Your task to perform on an android device: Open display settings Image 0: 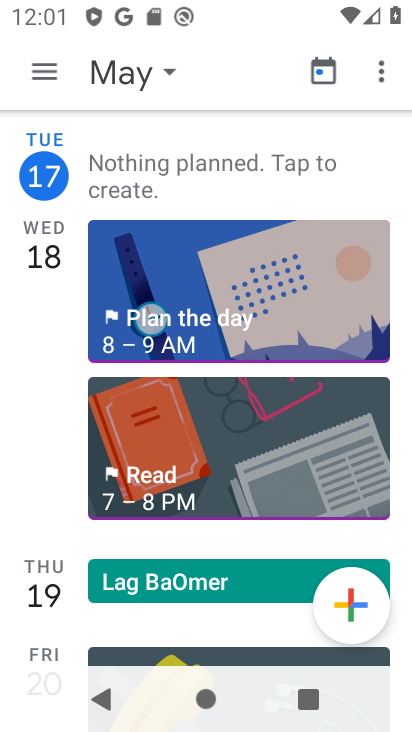
Step 0: press home button
Your task to perform on an android device: Open display settings Image 1: 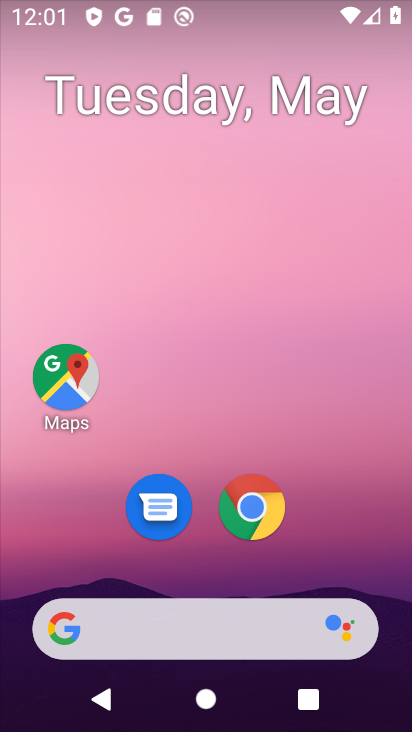
Step 1: drag from (365, 545) to (368, 104)
Your task to perform on an android device: Open display settings Image 2: 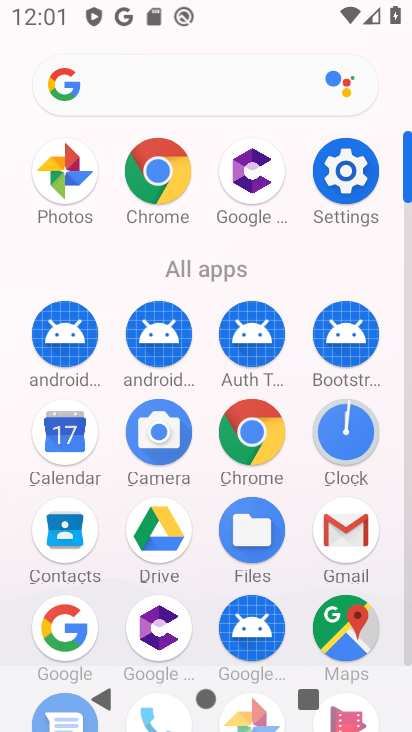
Step 2: click (340, 182)
Your task to perform on an android device: Open display settings Image 3: 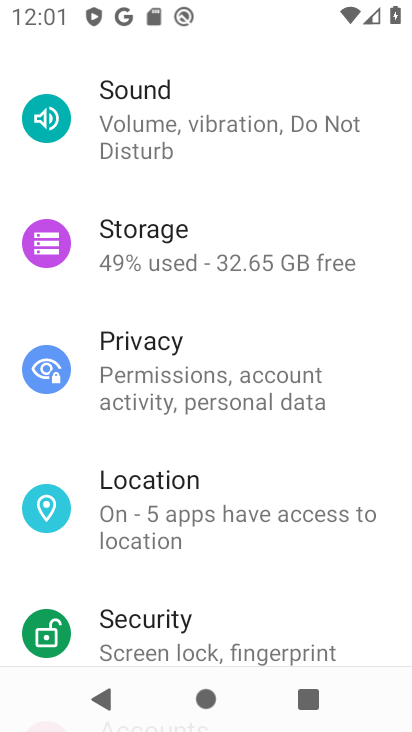
Step 3: drag from (361, 608) to (368, 410)
Your task to perform on an android device: Open display settings Image 4: 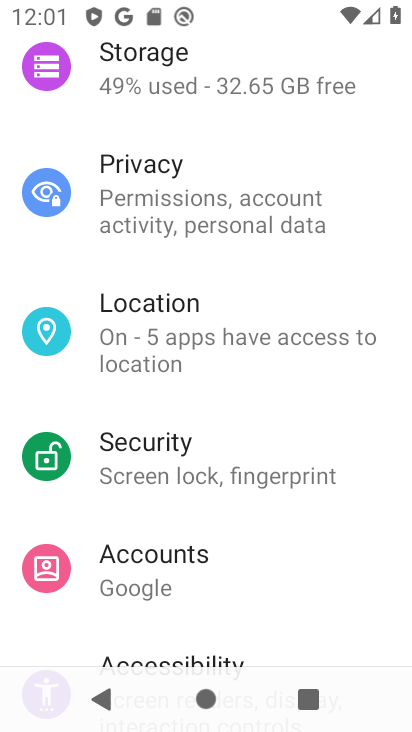
Step 4: drag from (335, 591) to (359, 429)
Your task to perform on an android device: Open display settings Image 5: 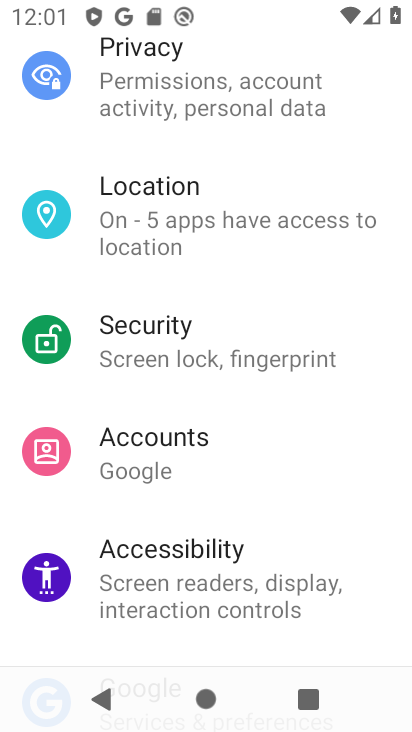
Step 5: drag from (341, 634) to (345, 482)
Your task to perform on an android device: Open display settings Image 6: 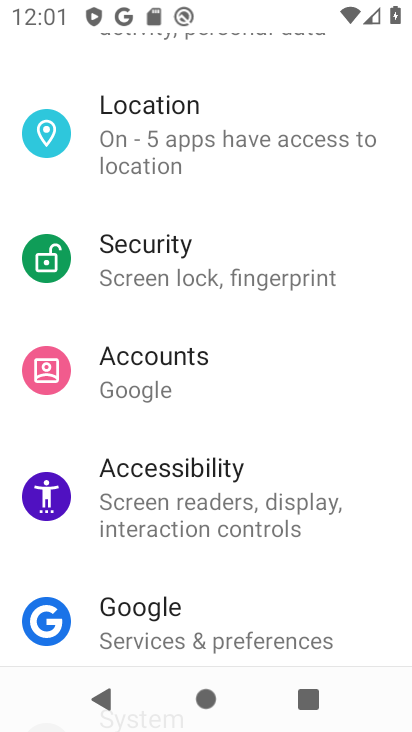
Step 6: drag from (352, 593) to (365, 417)
Your task to perform on an android device: Open display settings Image 7: 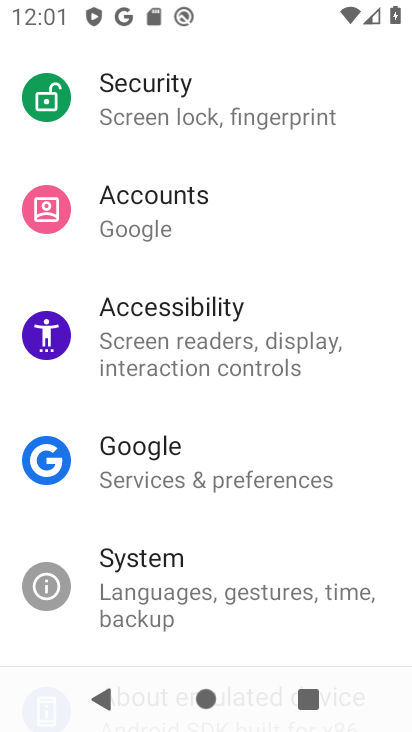
Step 7: drag from (349, 638) to (370, 456)
Your task to perform on an android device: Open display settings Image 8: 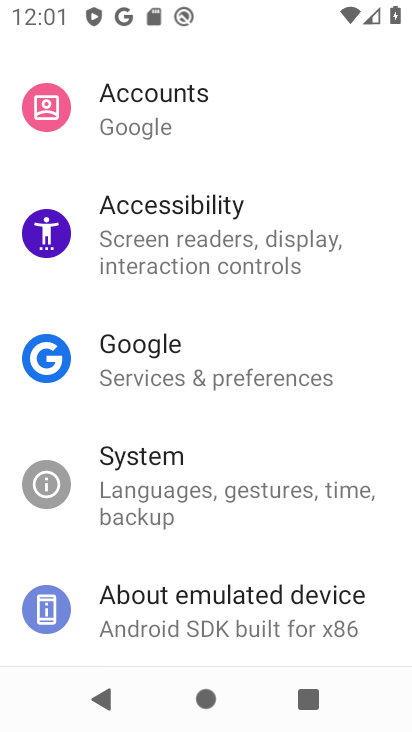
Step 8: drag from (348, 632) to (369, 448)
Your task to perform on an android device: Open display settings Image 9: 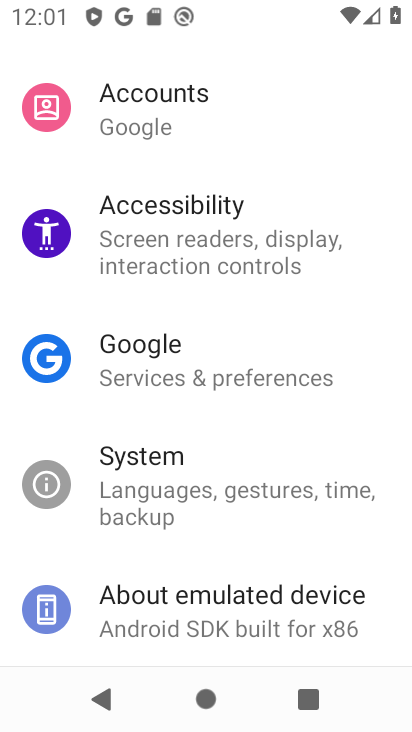
Step 9: drag from (370, 303) to (361, 524)
Your task to perform on an android device: Open display settings Image 10: 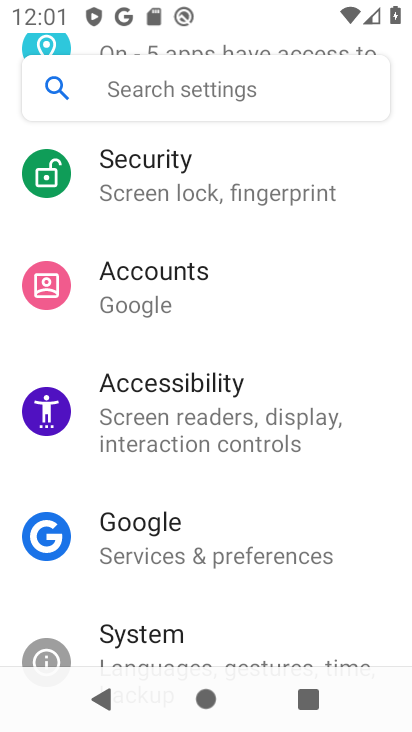
Step 10: drag from (351, 314) to (361, 498)
Your task to perform on an android device: Open display settings Image 11: 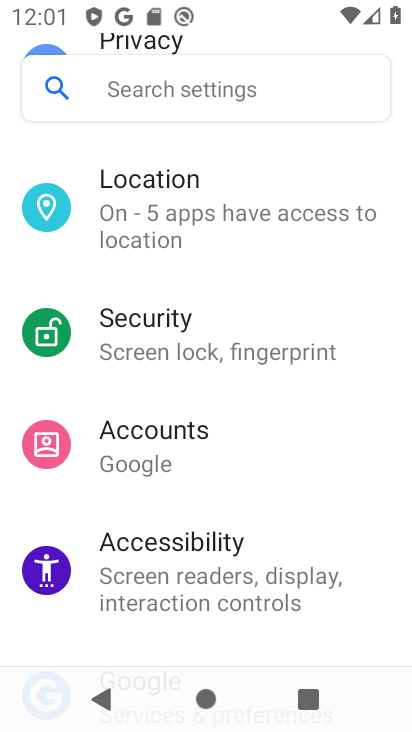
Step 11: drag from (347, 280) to (337, 459)
Your task to perform on an android device: Open display settings Image 12: 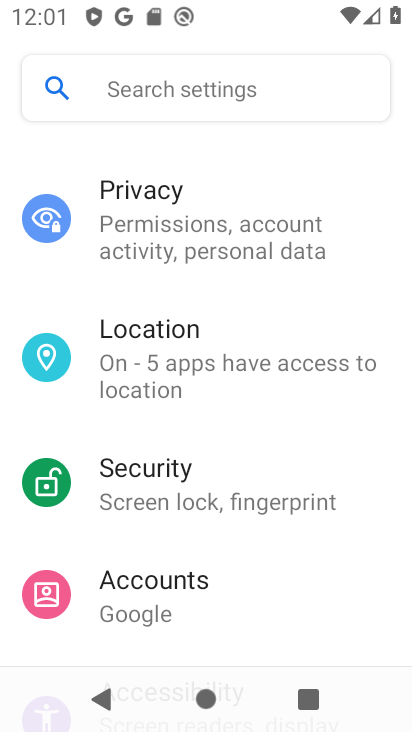
Step 12: drag from (353, 239) to (351, 444)
Your task to perform on an android device: Open display settings Image 13: 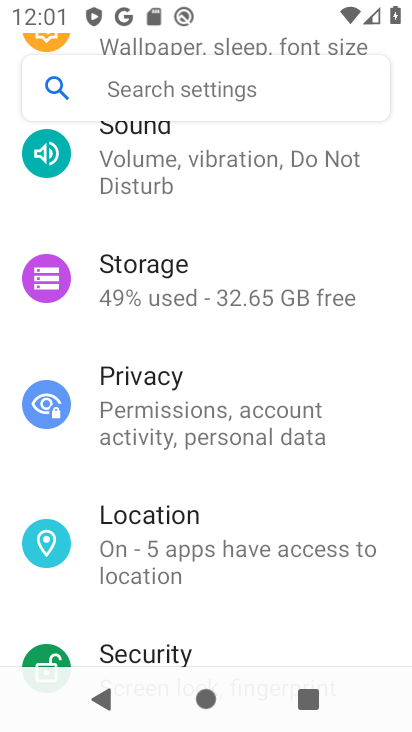
Step 13: drag from (367, 257) to (371, 417)
Your task to perform on an android device: Open display settings Image 14: 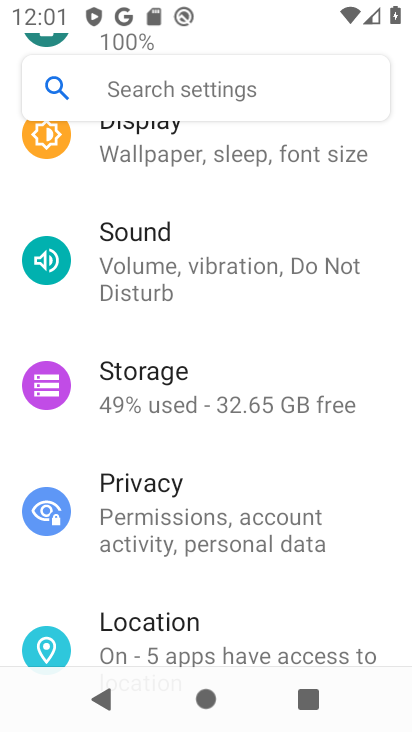
Step 14: drag from (357, 212) to (370, 447)
Your task to perform on an android device: Open display settings Image 15: 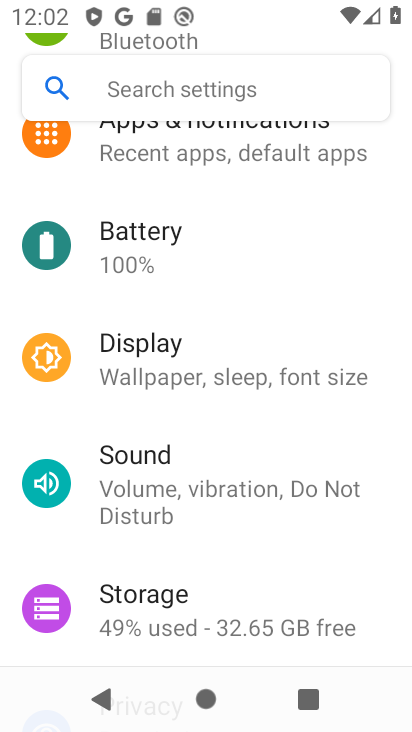
Step 15: click (280, 381)
Your task to perform on an android device: Open display settings Image 16: 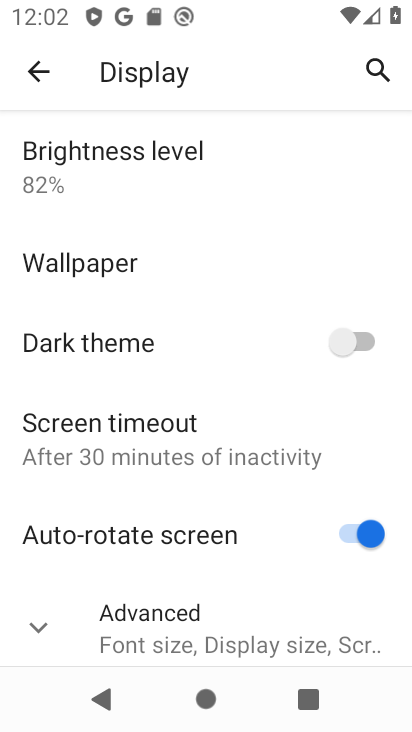
Step 16: task complete